Your task to perform on an android device: make emails show in primary in the gmail app Image 0: 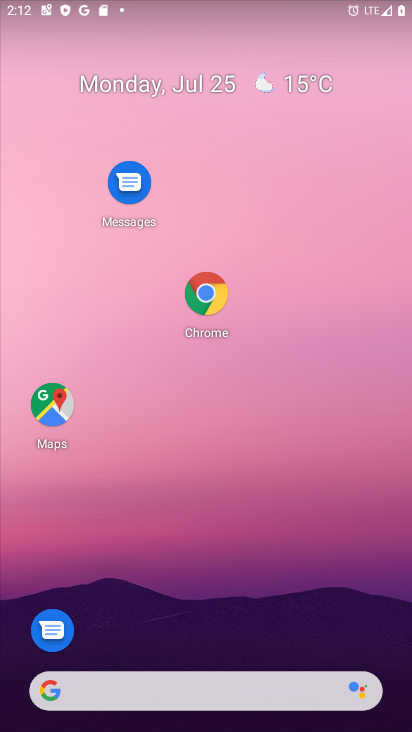
Step 0: drag from (324, 619) to (278, 26)
Your task to perform on an android device: make emails show in primary in the gmail app Image 1: 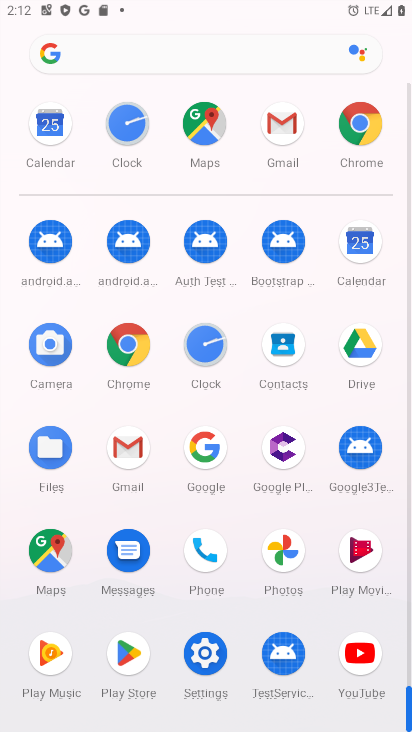
Step 1: click (274, 116)
Your task to perform on an android device: make emails show in primary in the gmail app Image 2: 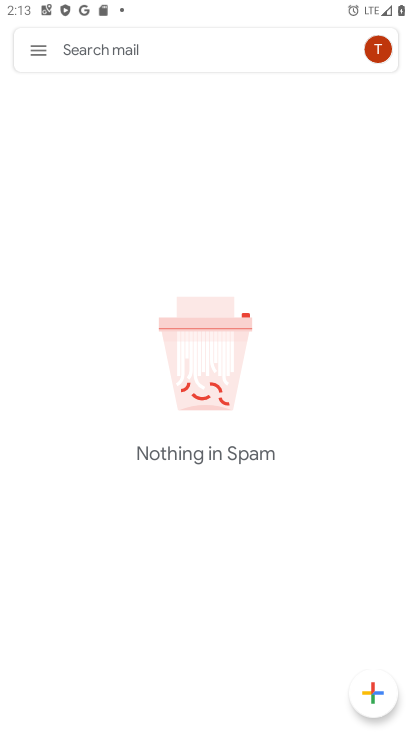
Step 2: task complete